Your task to perform on an android device: Open settings Image 0: 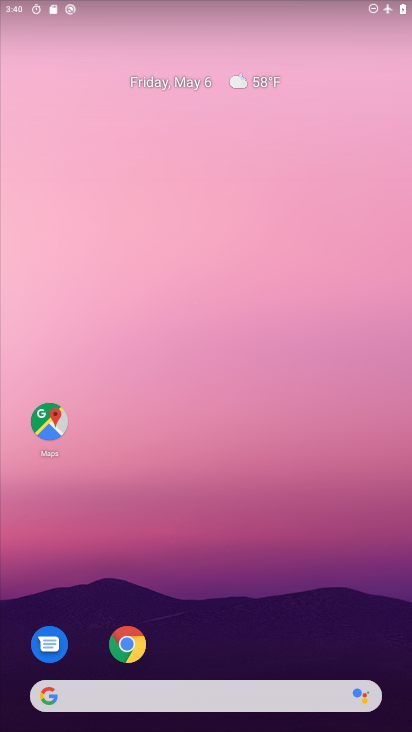
Step 0: drag from (228, 726) to (195, 268)
Your task to perform on an android device: Open settings Image 1: 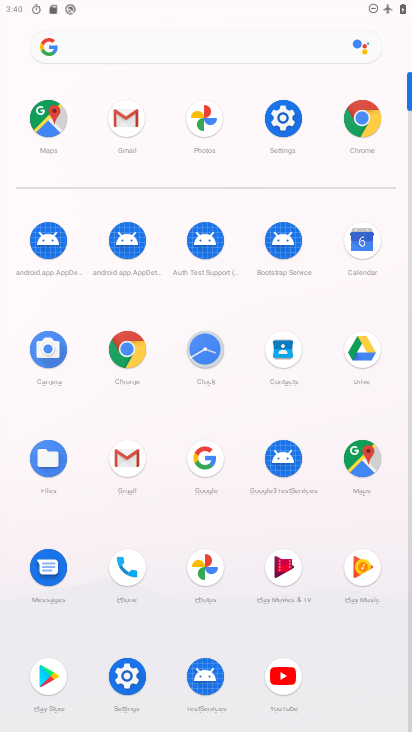
Step 1: click (283, 129)
Your task to perform on an android device: Open settings Image 2: 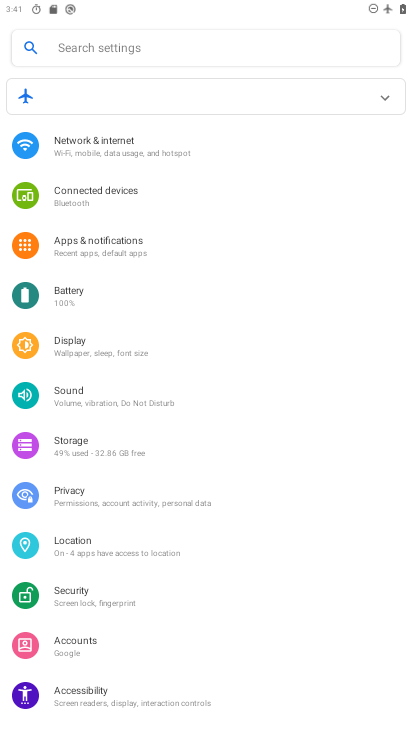
Step 2: task complete